Your task to perform on an android device: refresh tabs in the chrome app Image 0: 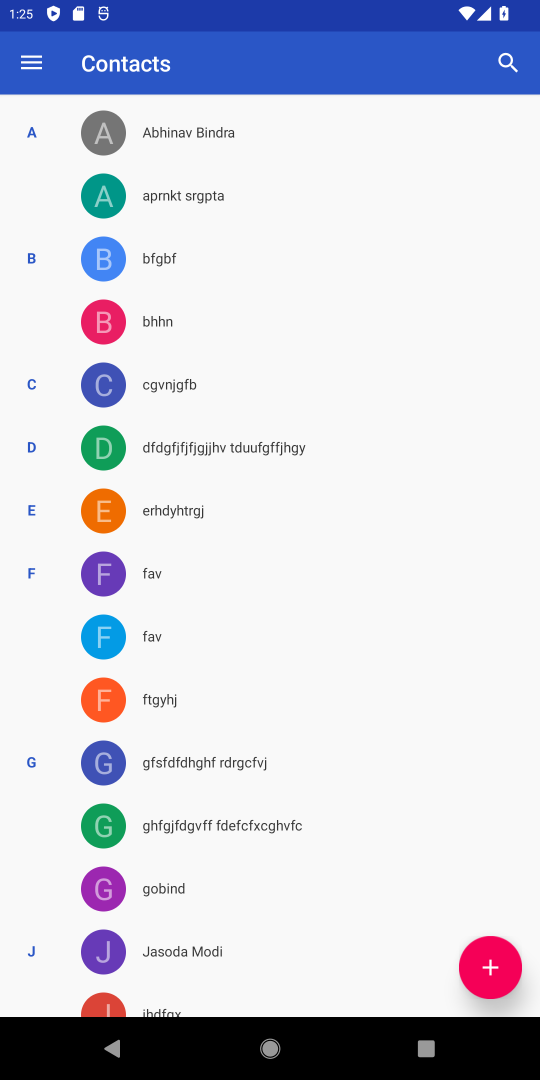
Step 0: drag from (197, 866) to (289, 318)
Your task to perform on an android device: refresh tabs in the chrome app Image 1: 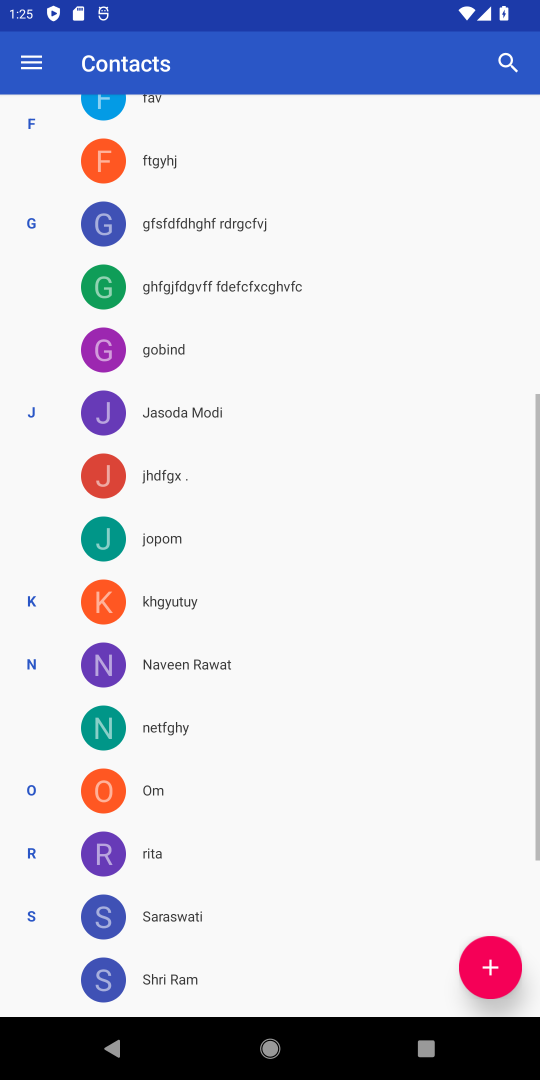
Step 1: press home button
Your task to perform on an android device: refresh tabs in the chrome app Image 2: 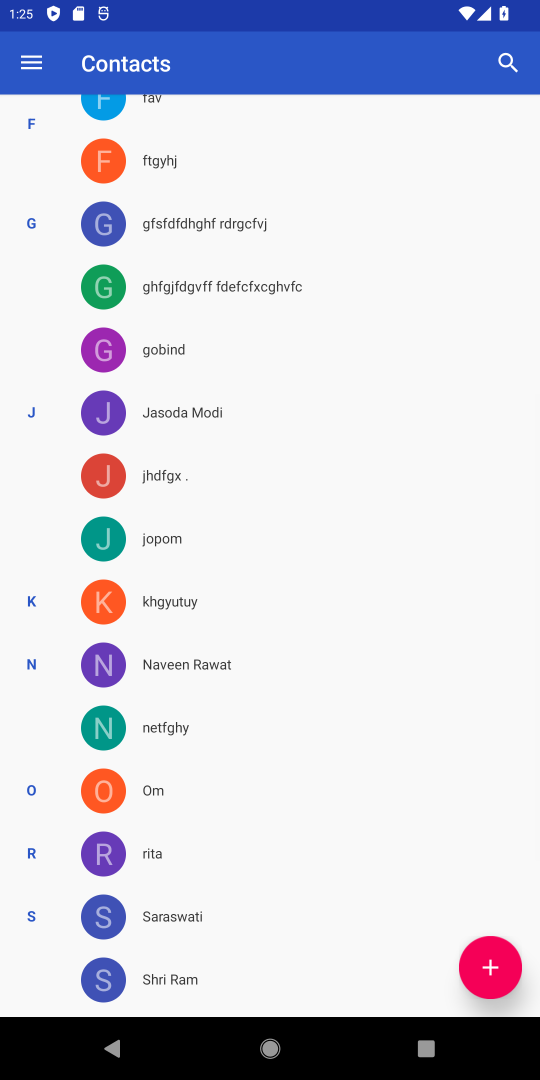
Step 2: press home button
Your task to perform on an android device: refresh tabs in the chrome app Image 3: 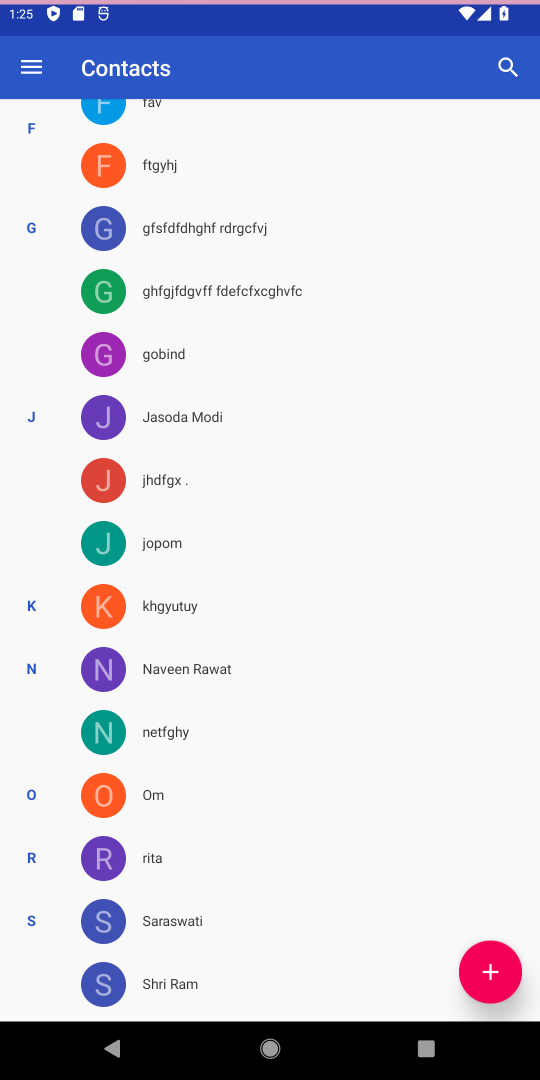
Step 3: press home button
Your task to perform on an android device: refresh tabs in the chrome app Image 4: 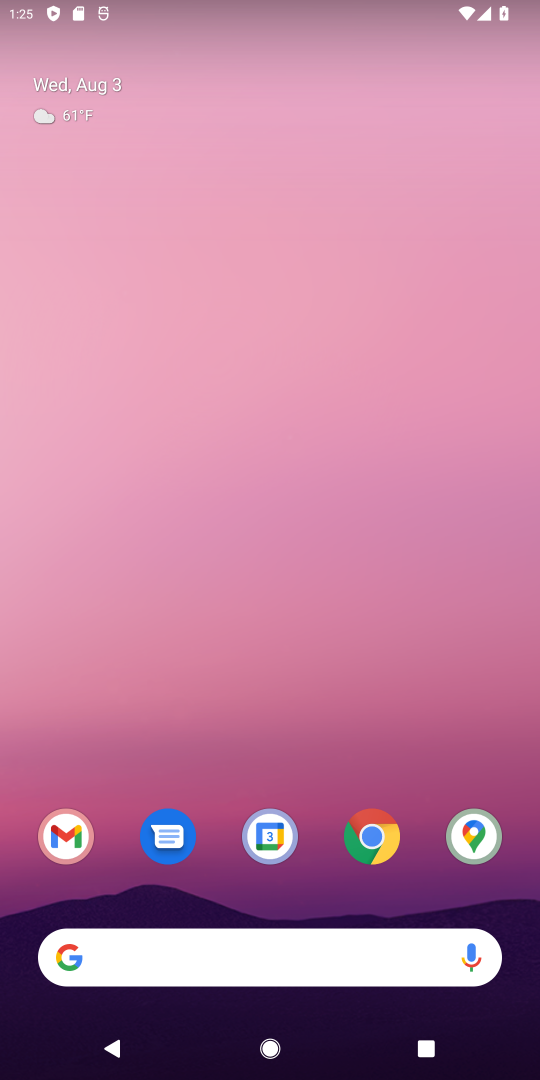
Step 4: drag from (236, 854) to (348, 507)
Your task to perform on an android device: refresh tabs in the chrome app Image 5: 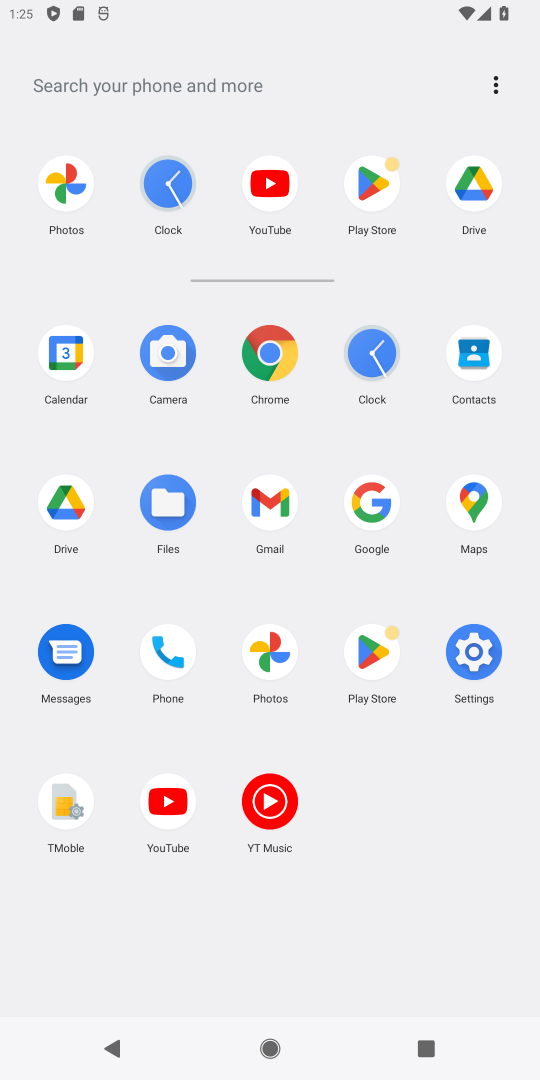
Step 5: click (269, 347)
Your task to perform on an android device: refresh tabs in the chrome app Image 6: 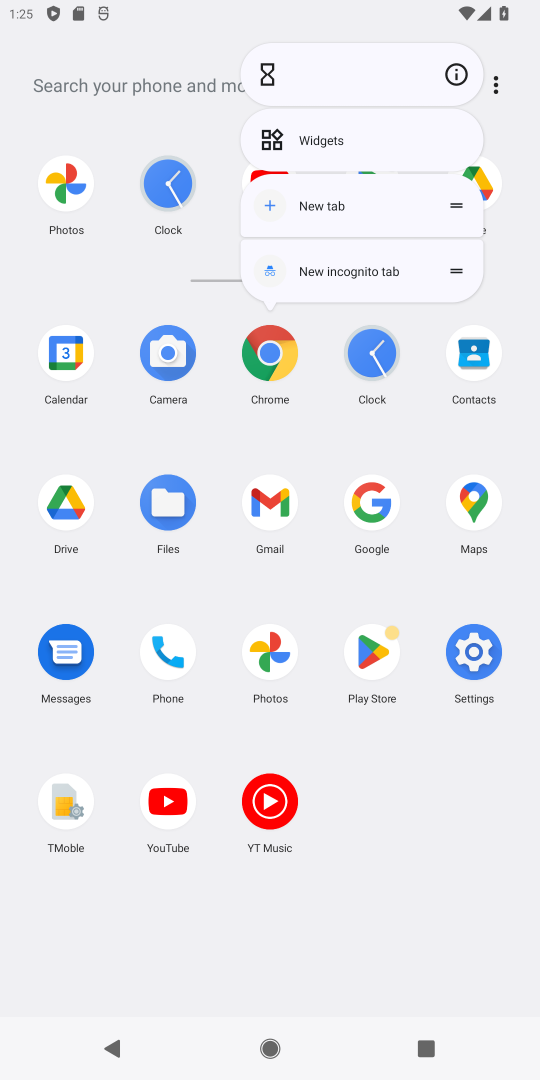
Step 6: click (453, 73)
Your task to perform on an android device: refresh tabs in the chrome app Image 7: 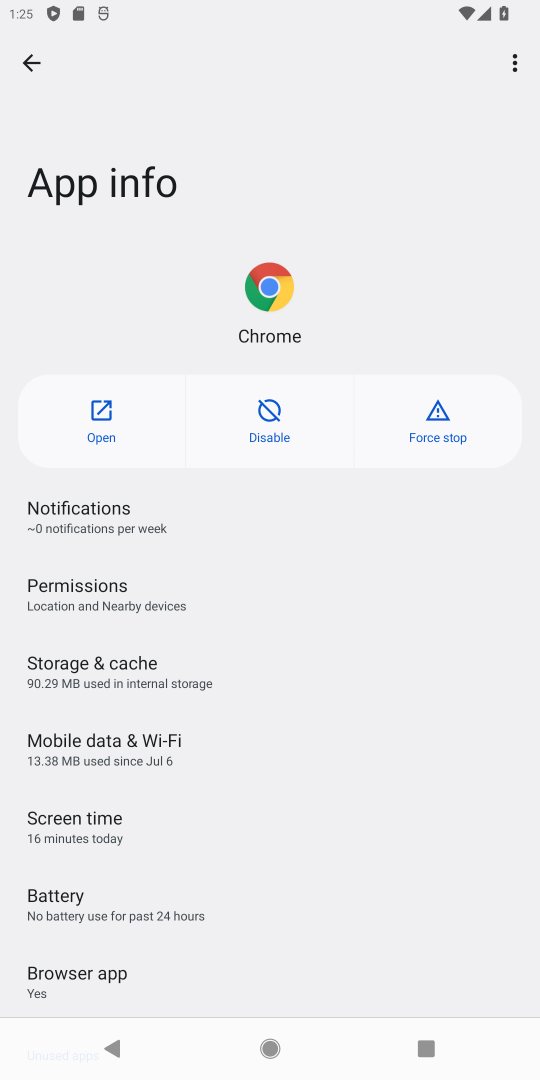
Step 7: click (102, 411)
Your task to perform on an android device: refresh tabs in the chrome app Image 8: 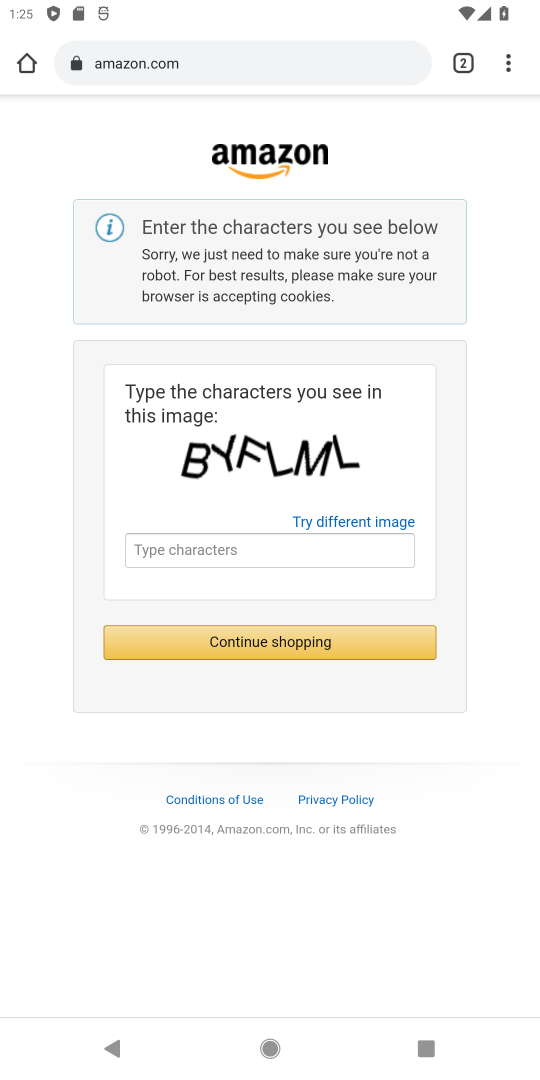
Step 8: click (511, 62)
Your task to perform on an android device: refresh tabs in the chrome app Image 9: 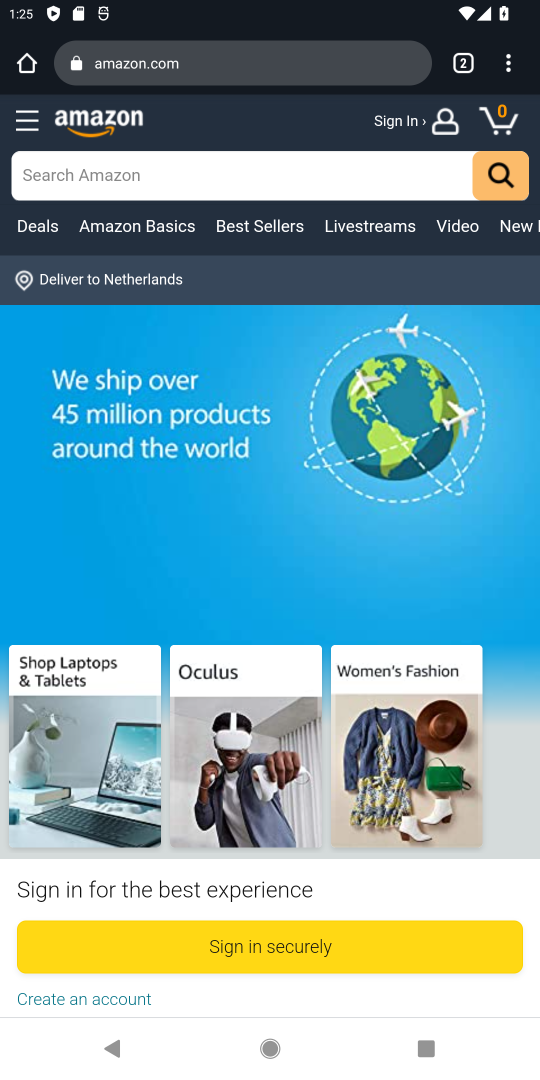
Step 9: drag from (231, 837) to (377, 340)
Your task to perform on an android device: refresh tabs in the chrome app Image 10: 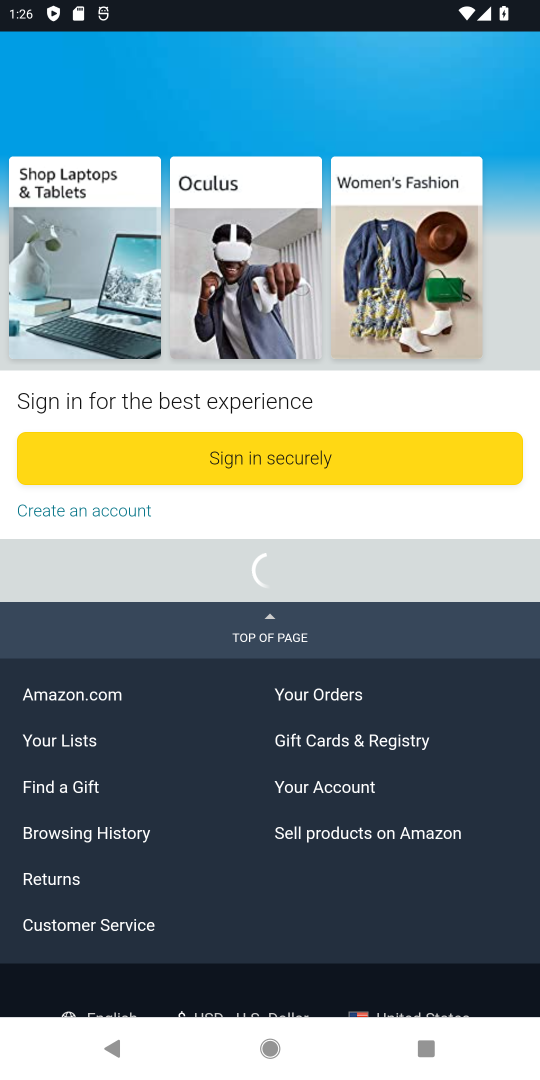
Step 10: click (292, 396)
Your task to perform on an android device: refresh tabs in the chrome app Image 11: 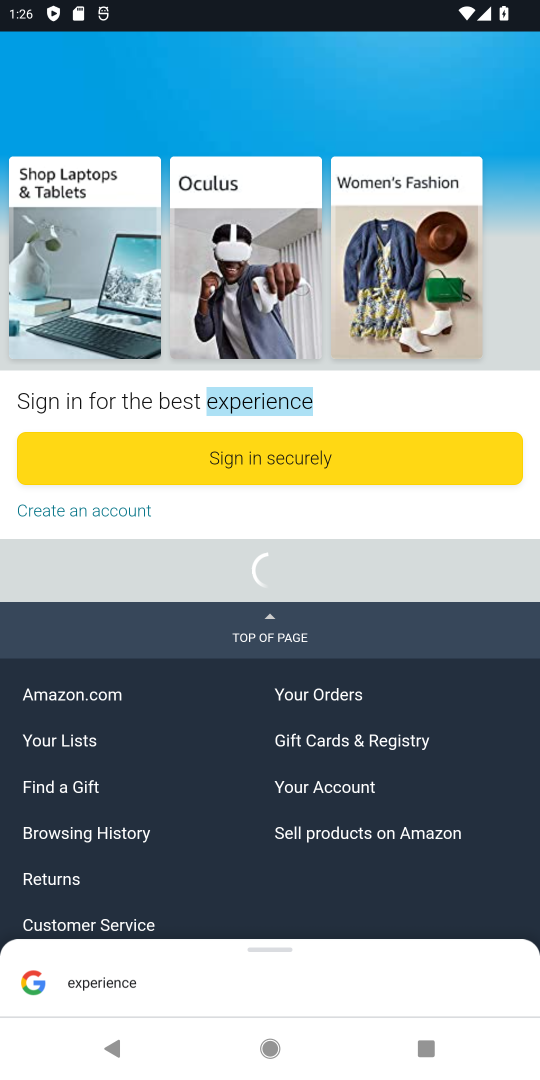
Step 11: task complete